Your task to perform on an android device: open wifi settings Image 0: 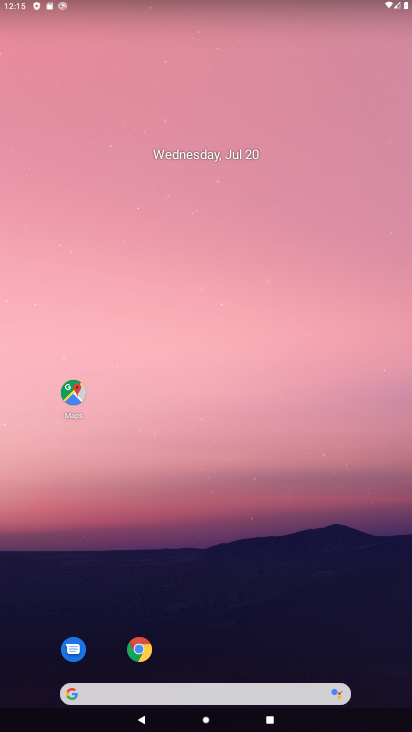
Step 0: drag from (177, 677) to (260, 13)
Your task to perform on an android device: open wifi settings Image 1: 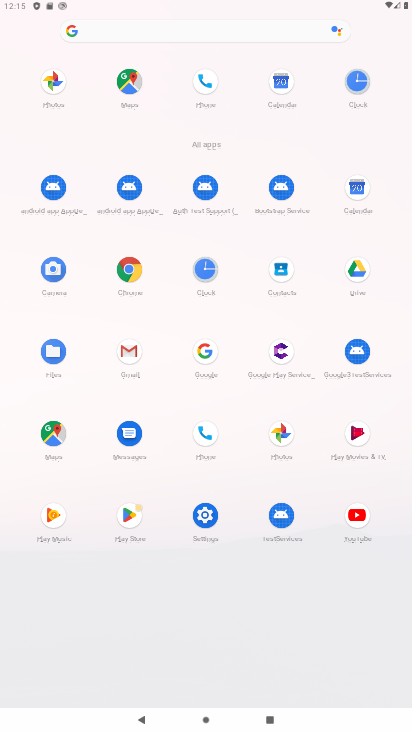
Step 1: click (206, 517)
Your task to perform on an android device: open wifi settings Image 2: 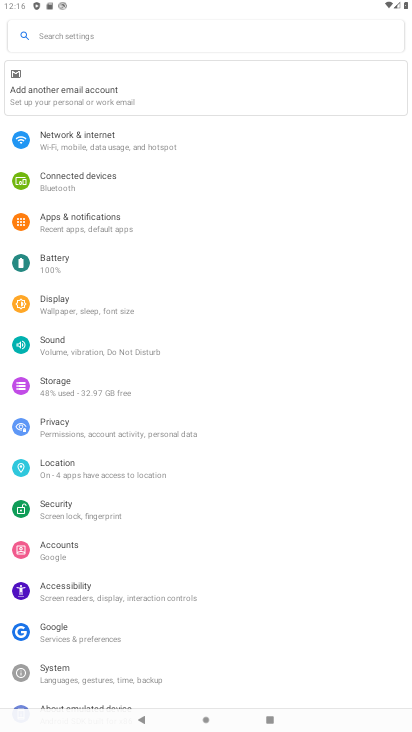
Step 2: click (162, 146)
Your task to perform on an android device: open wifi settings Image 3: 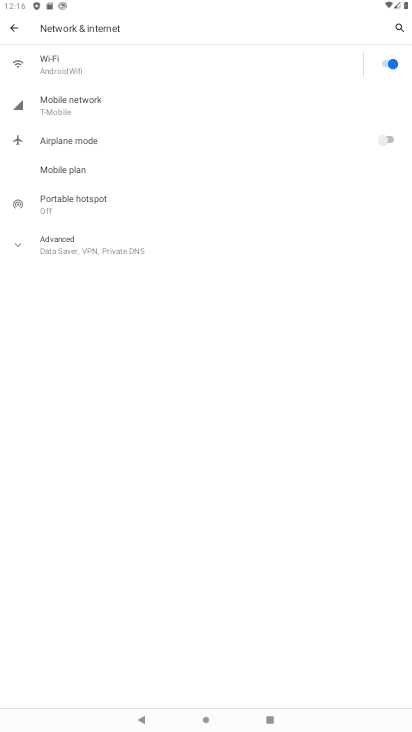
Step 3: click (156, 63)
Your task to perform on an android device: open wifi settings Image 4: 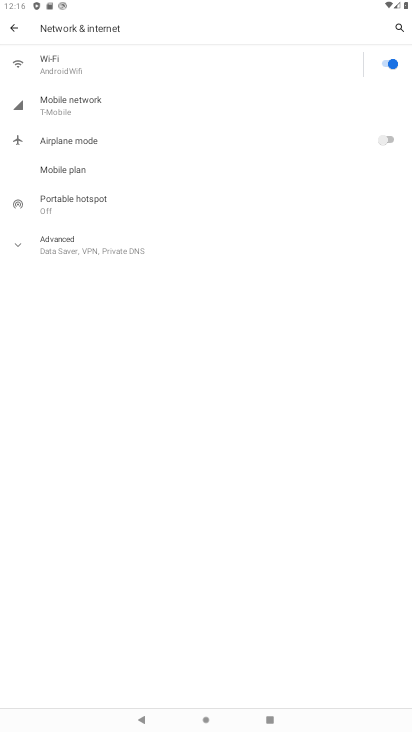
Step 4: click (156, 63)
Your task to perform on an android device: open wifi settings Image 5: 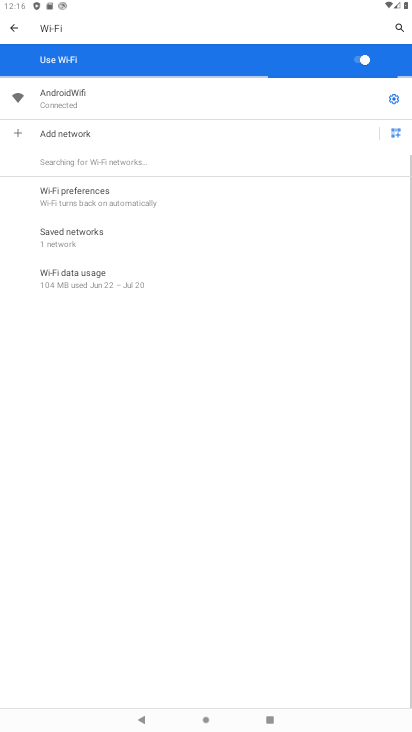
Step 5: click (393, 97)
Your task to perform on an android device: open wifi settings Image 6: 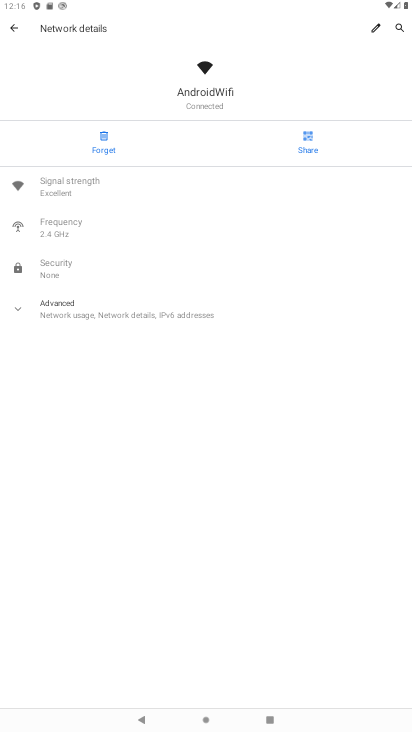
Step 6: task complete